Your task to perform on an android device: turn off airplane mode Image 0: 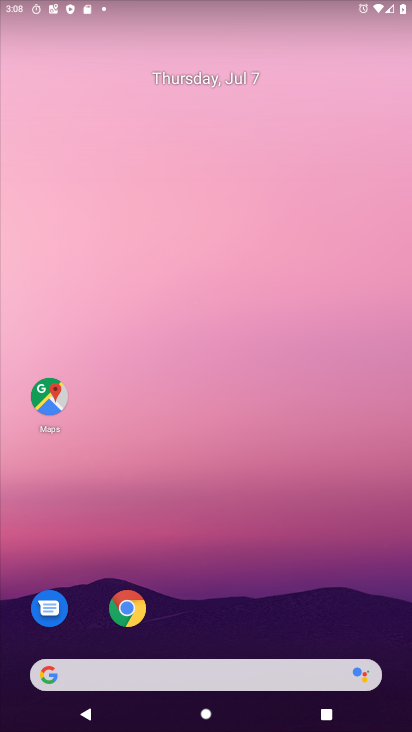
Step 0: drag from (269, 722) to (230, 94)
Your task to perform on an android device: turn off airplane mode Image 1: 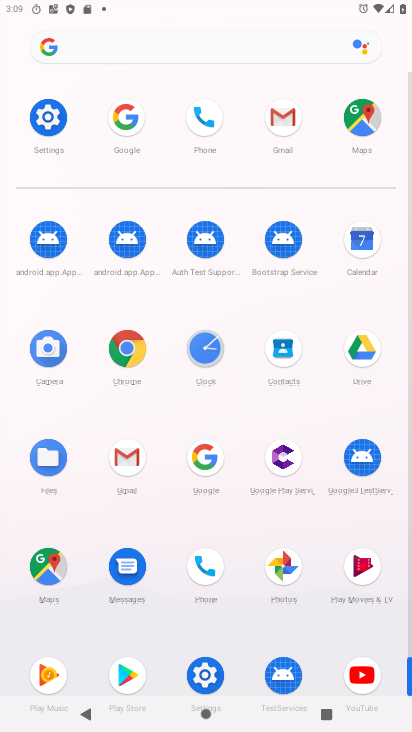
Step 1: click (46, 112)
Your task to perform on an android device: turn off airplane mode Image 2: 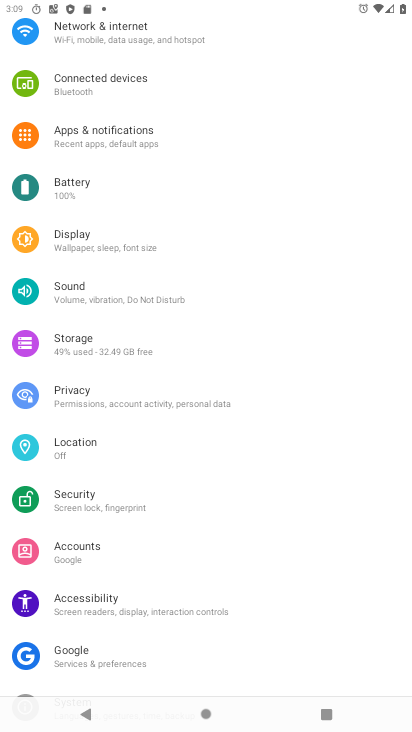
Step 2: click (126, 27)
Your task to perform on an android device: turn off airplane mode Image 3: 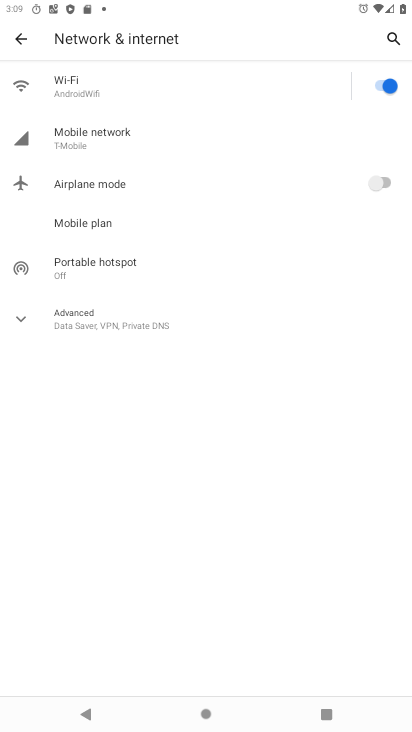
Step 3: task complete